Your task to perform on an android device: Open the map Image 0: 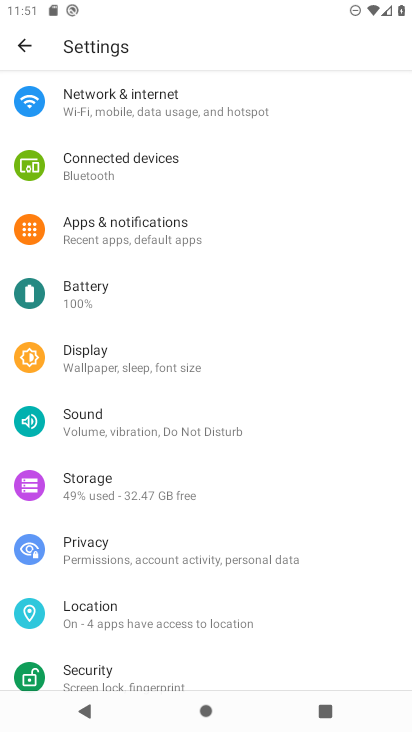
Step 0: press back button
Your task to perform on an android device: Open the map Image 1: 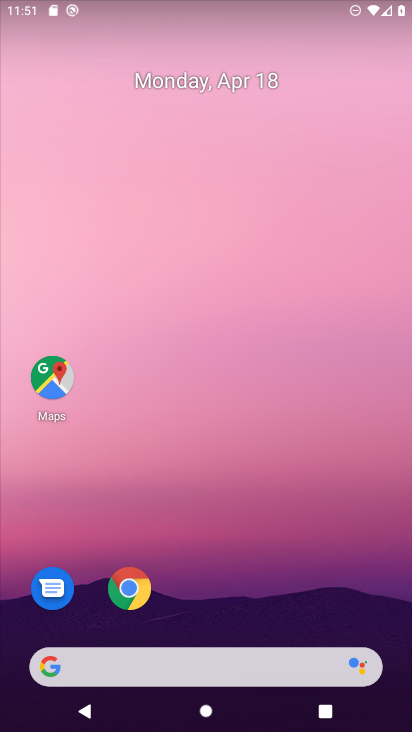
Step 1: click (50, 373)
Your task to perform on an android device: Open the map Image 2: 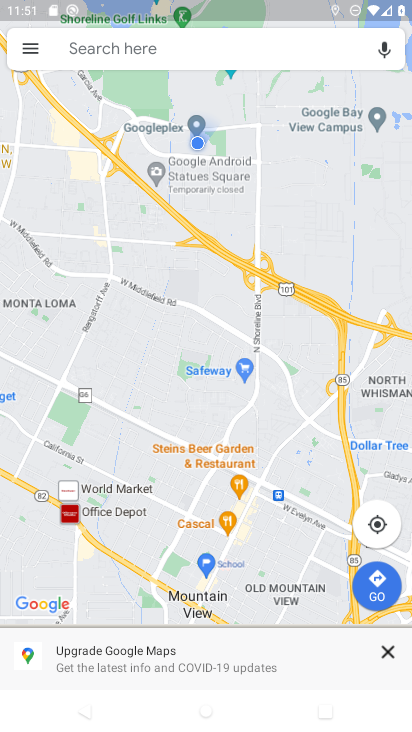
Step 2: task complete